Your task to perform on an android device: Go to Yahoo.com Image 0: 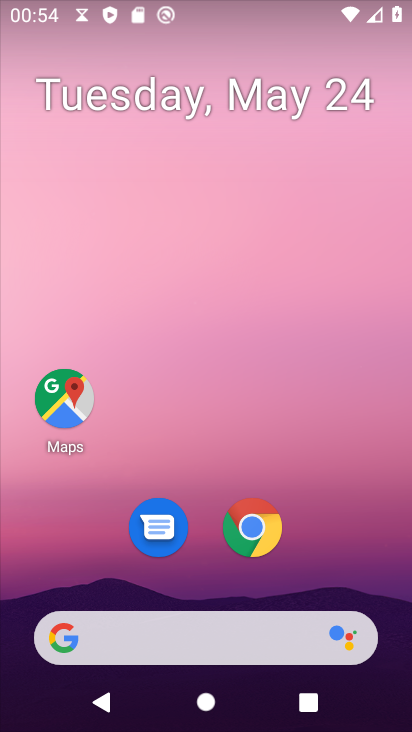
Step 0: press home button
Your task to perform on an android device: Go to Yahoo.com Image 1: 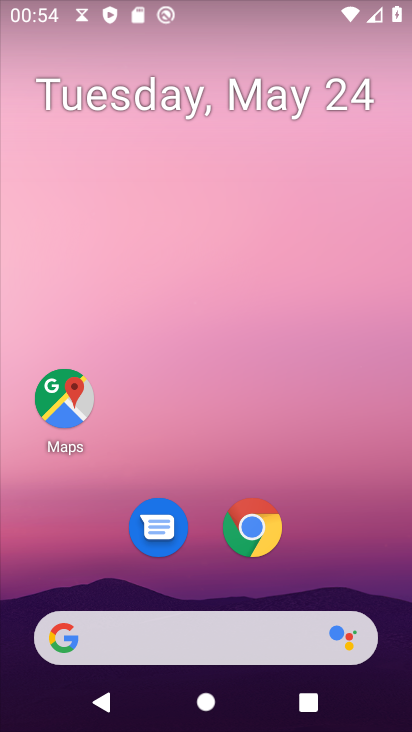
Step 1: click (250, 537)
Your task to perform on an android device: Go to Yahoo.com Image 2: 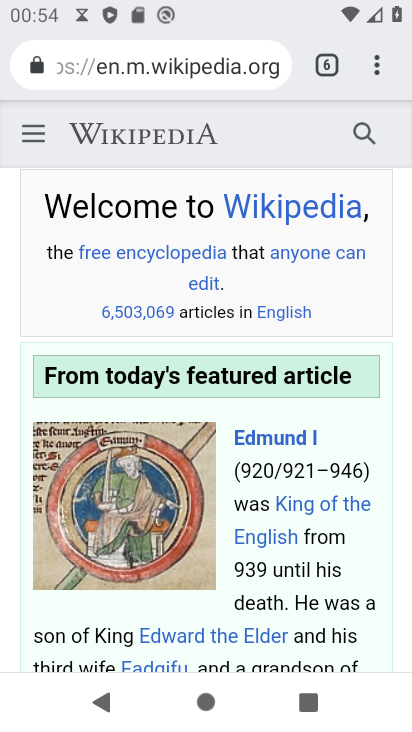
Step 2: drag from (372, 70) to (277, 120)
Your task to perform on an android device: Go to Yahoo.com Image 3: 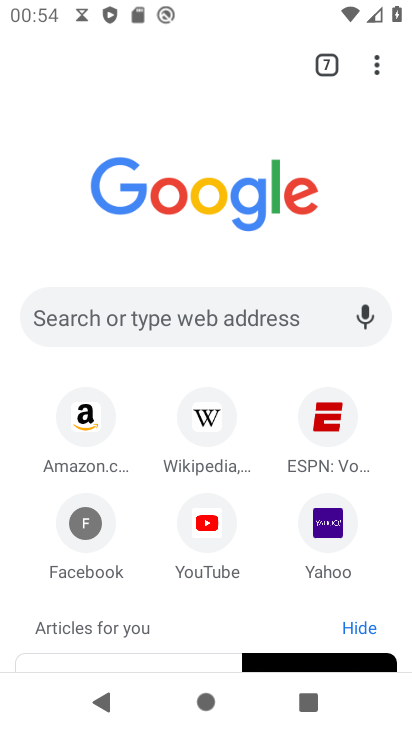
Step 3: click (335, 522)
Your task to perform on an android device: Go to Yahoo.com Image 4: 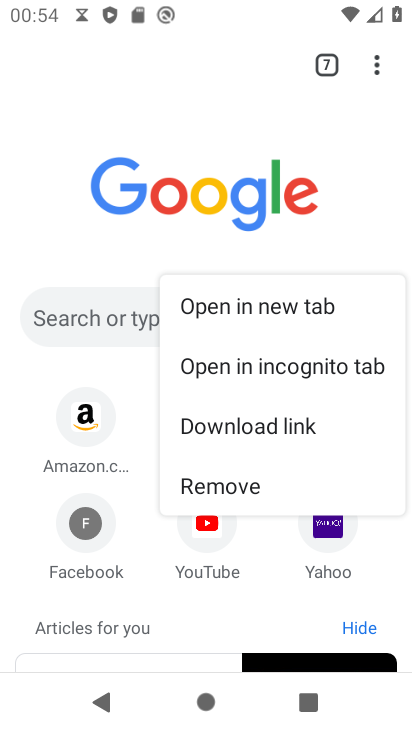
Step 4: click (335, 522)
Your task to perform on an android device: Go to Yahoo.com Image 5: 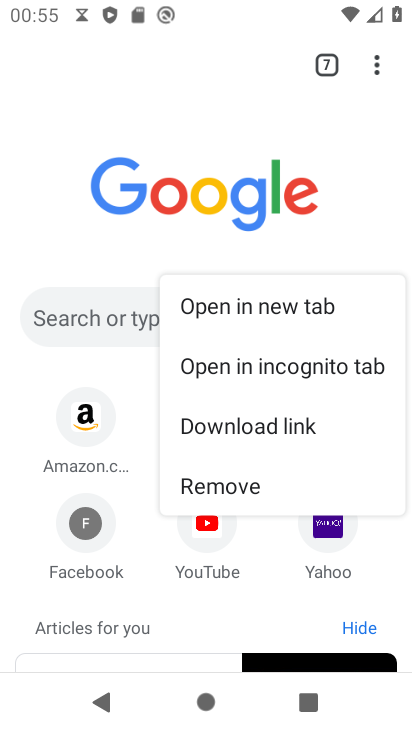
Step 5: click (327, 531)
Your task to perform on an android device: Go to Yahoo.com Image 6: 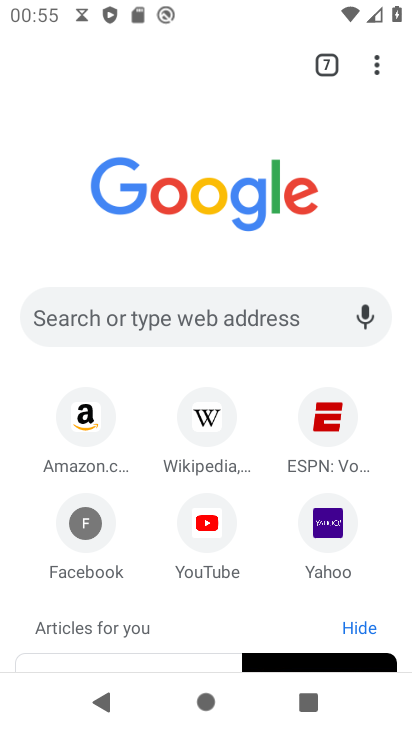
Step 6: click (327, 531)
Your task to perform on an android device: Go to Yahoo.com Image 7: 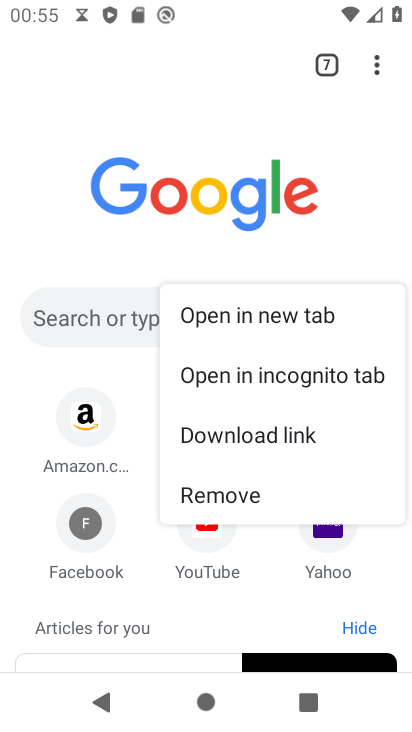
Step 7: click (327, 530)
Your task to perform on an android device: Go to Yahoo.com Image 8: 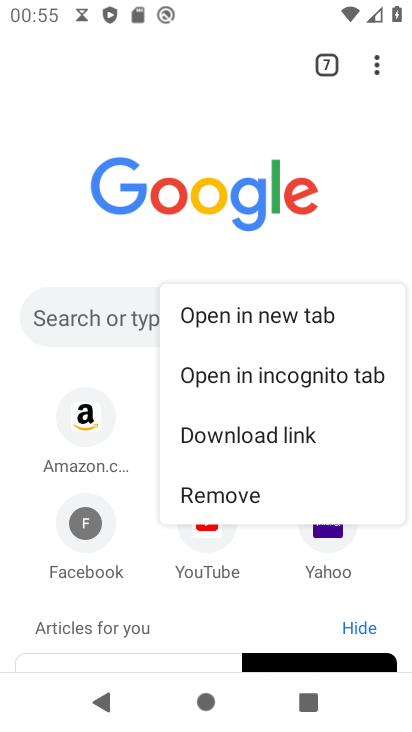
Step 8: click (333, 535)
Your task to perform on an android device: Go to Yahoo.com Image 9: 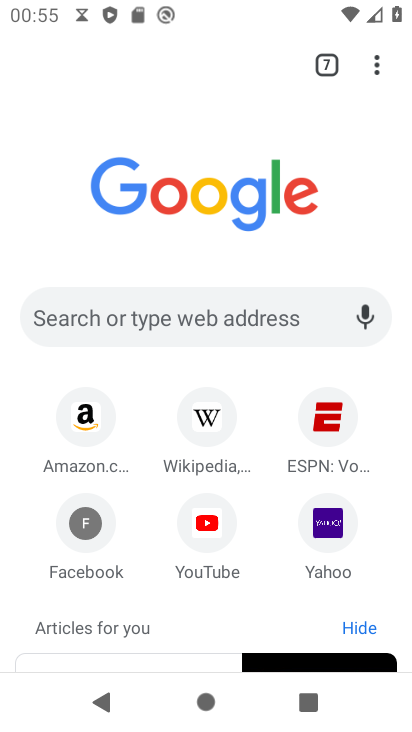
Step 9: click (331, 527)
Your task to perform on an android device: Go to Yahoo.com Image 10: 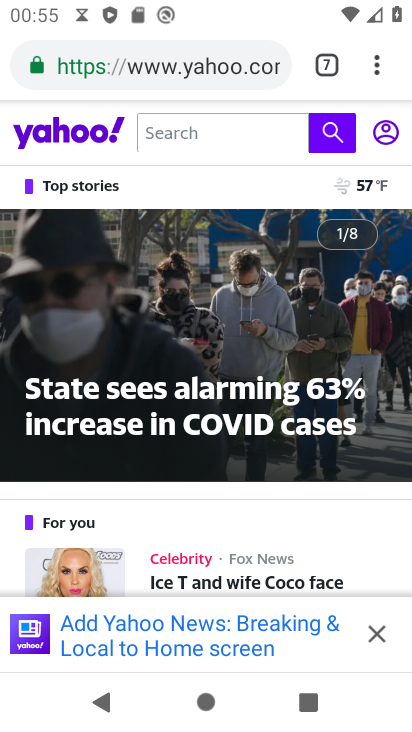
Step 10: task complete